Your task to perform on an android device: make emails show in primary in the gmail app Image 0: 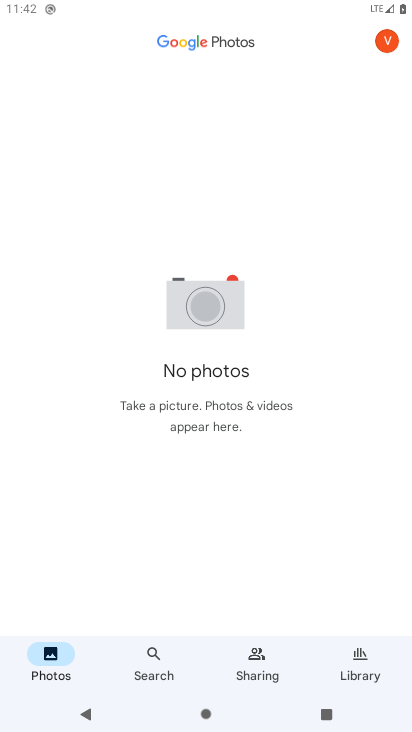
Step 0: press home button
Your task to perform on an android device: make emails show in primary in the gmail app Image 1: 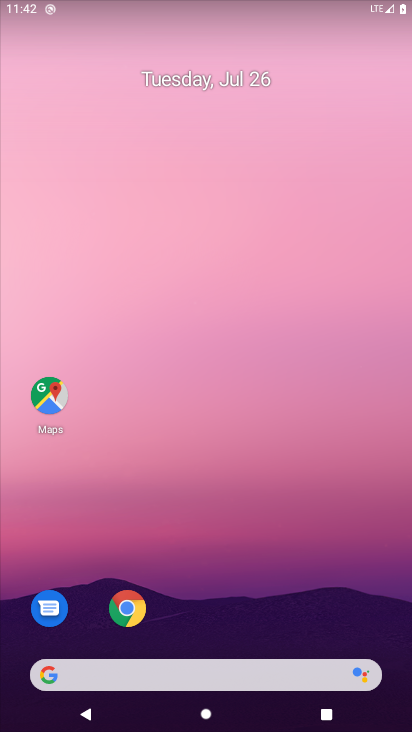
Step 1: drag from (278, 619) to (306, 109)
Your task to perform on an android device: make emails show in primary in the gmail app Image 2: 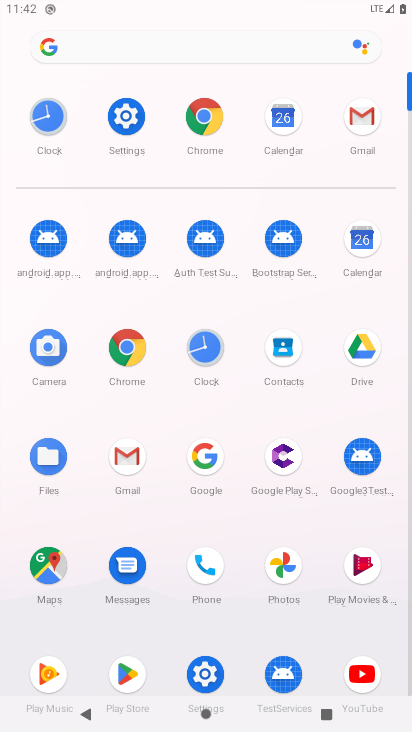
Step 2: click (375, 111)
Your task to perform on an android device: make emails show in primary in the gmail app Image 3: 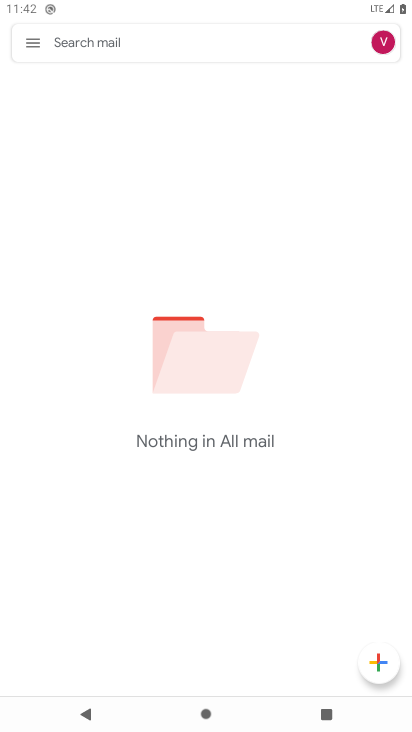
Step 3: click (27, 44)
Your task to perform on an android device: make emails show in primary in the gmail app Image 4: 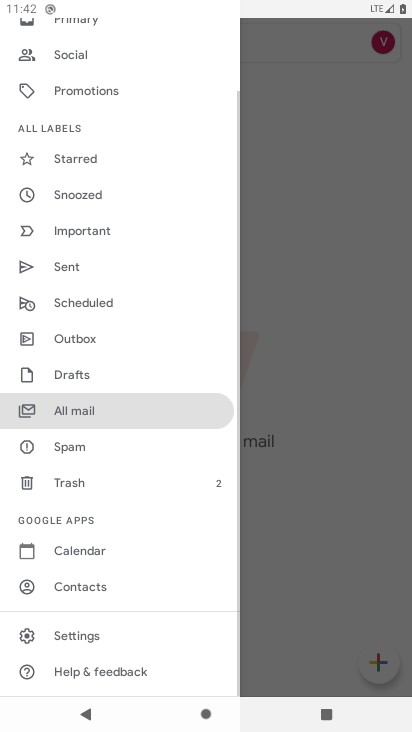
Step 4: click (101, 634)
Your task to perform on an android device: make emails show in primary in the gmail app Image 5: 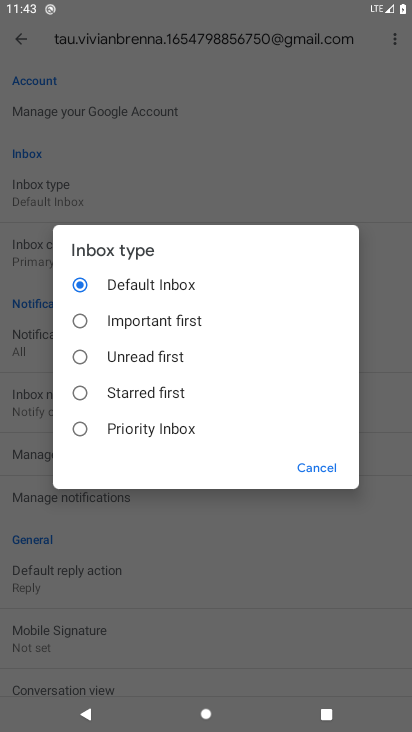
Step 5: click (333, 462)
Your task to perform on an android device: make emails show in primary in the gmail app Image 6: 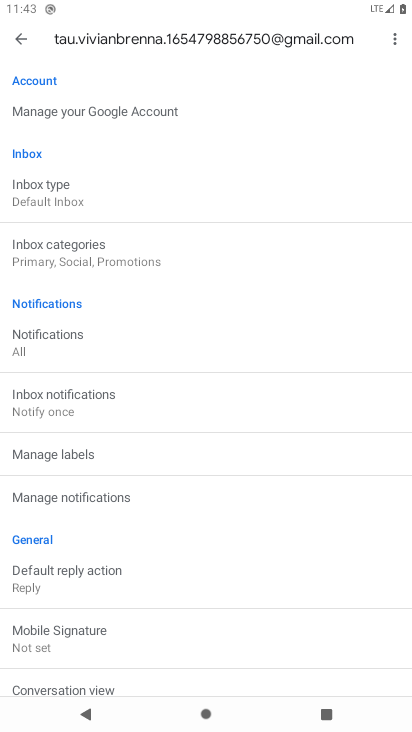
Step 6: click (59, 253)
Your task to perform on an android device: make emails show in primary in the gmail app Image 7: 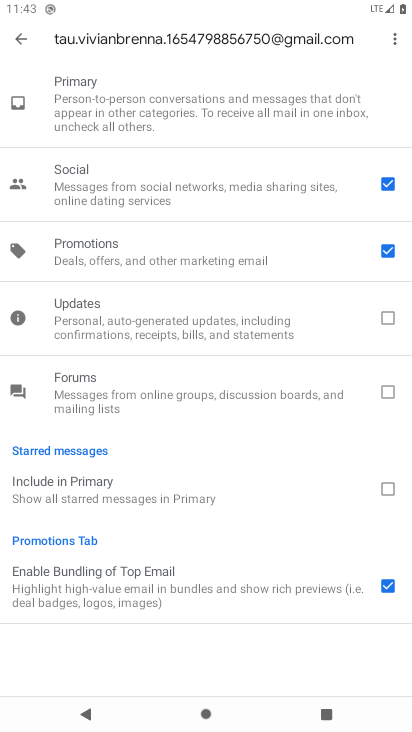
Step 7: click (385, 249)
Your task to perform on an android device: make emails show in primary in the gmail app Image 8: 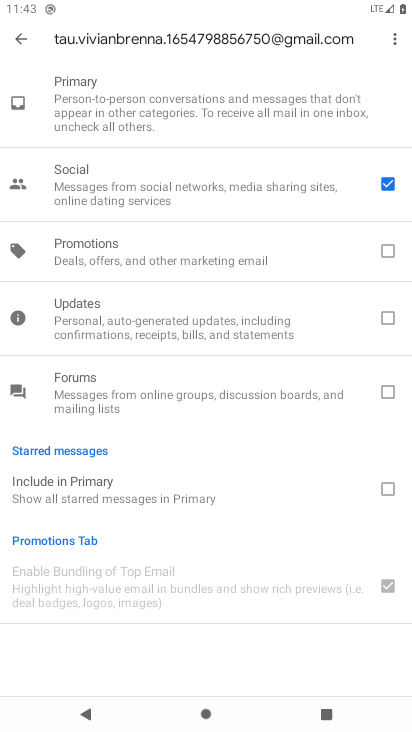
Step 8: click (383, 183)
Your task to perform on an android device: make emails show in primary in the gmail app Image 9: 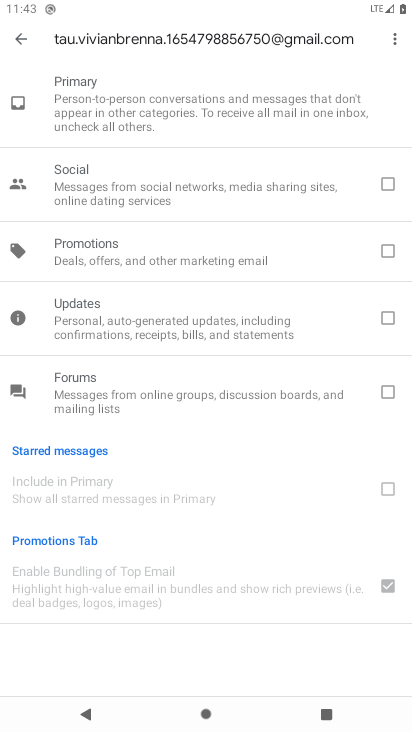
Step 9: task complete